Your task to perform on an android device: Open Google Chrome Image 0: 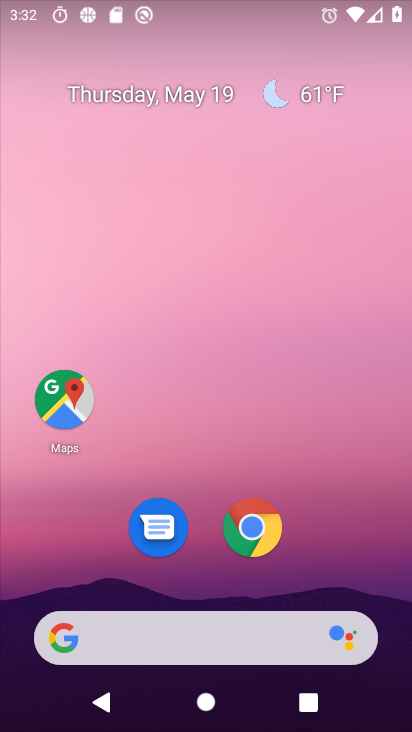
Step 0: click (263, 539)
Your task to perform on an android device: Open Google Chrome Image 1: 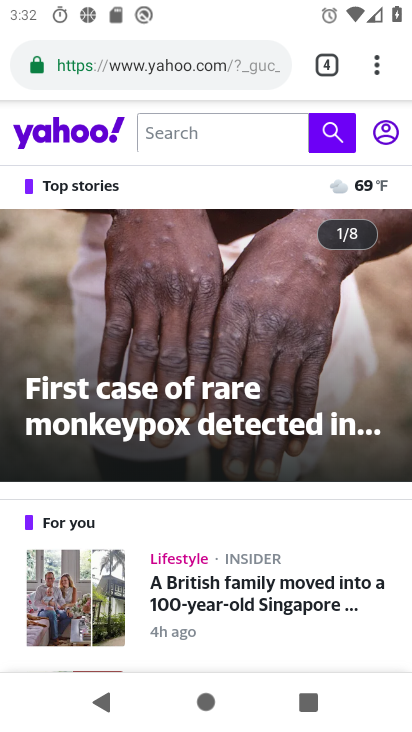
Step 1: task complete